Your task to perform on an android device: change keyboard looks Image 0: 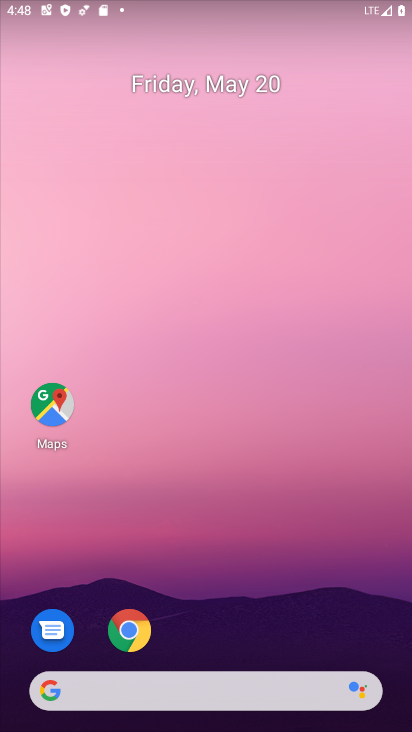
Step 0: drag from (219, 574) to (232, 159)
Your task to perform on an android device: change keyboard looks Image 1: 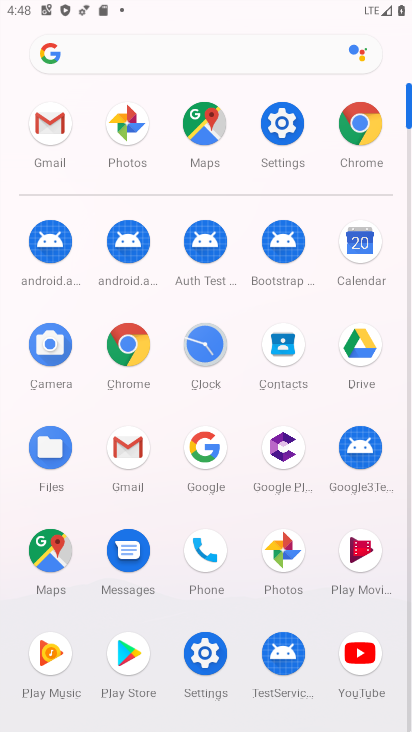
Step 1: click (283, 129)
Your task to perform on an android device: change keyboard looks Image 2: 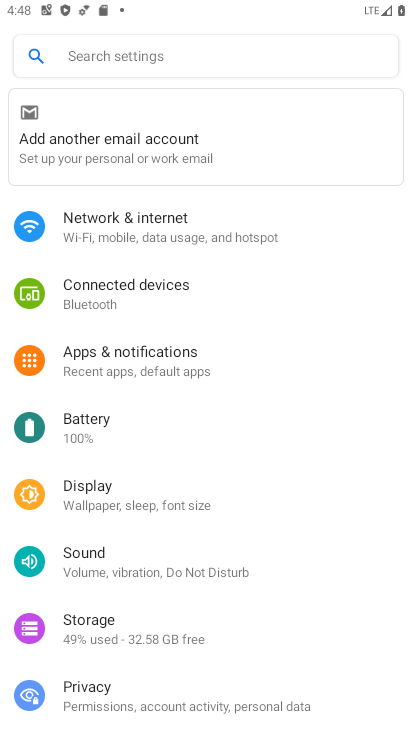
Step 2: drag from (183, 586) to (198, 245)
Your task to perform on an android device: change keyboard looks Image 3: 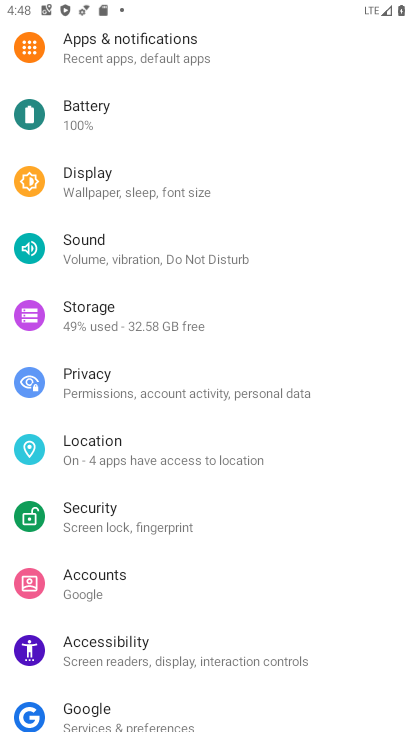
Step 3: drag from (155, 606) to (186, 347)
Your task to perform on an android device: change keyboard looks Image 4: 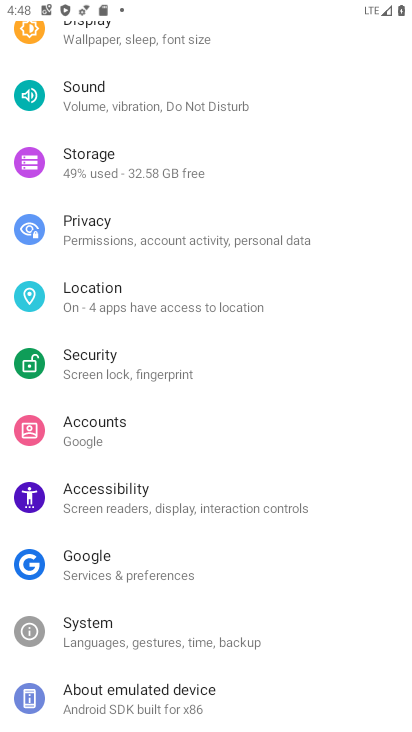
Step 4: click (147, 637)
Your task to perform on an android device: change keyboard looks Image 5: 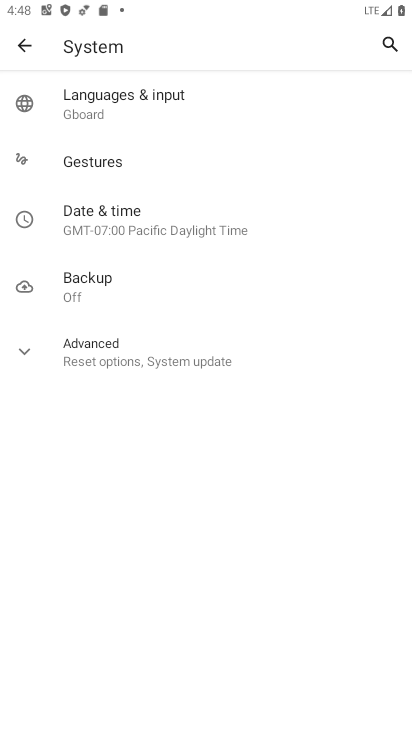
Step 5: click (136, 97)
Your task to perform on an android device: change keyboard looks Image 6: 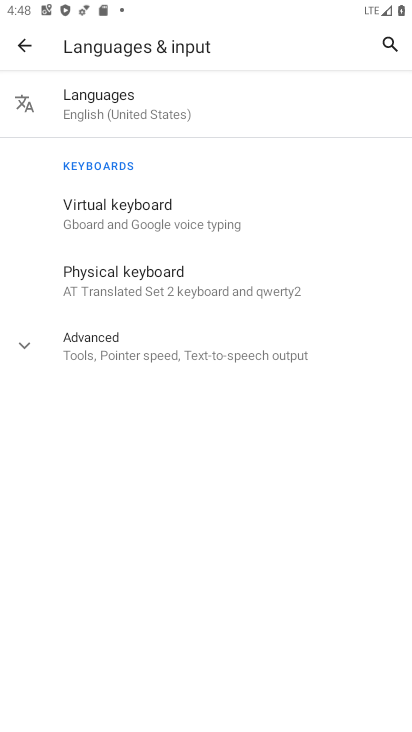
Step 6: click (132, 202)
Your task to perform on an android device: change keyboard looks Image 7: 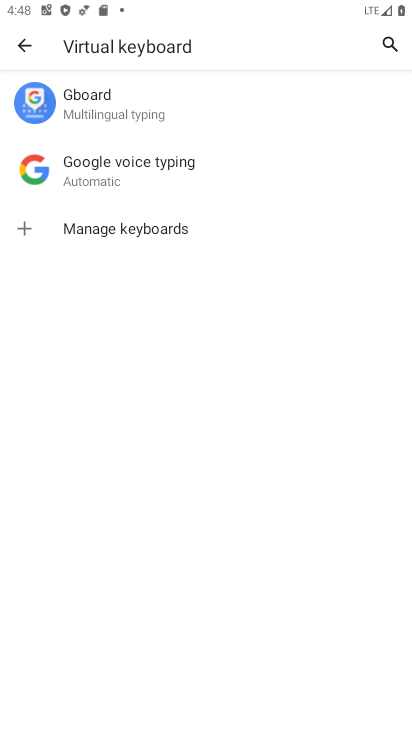
Step 7: click (119, 107)
Your task to perform on an android device: change keyboard looks Image 8: 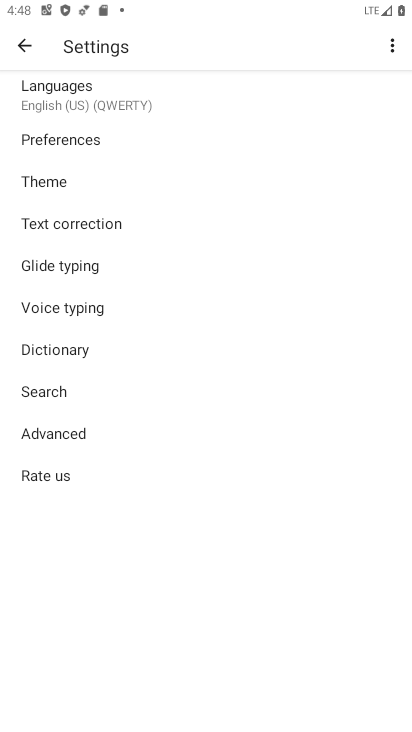
Step 8: click (55, 177)
Your task to perform on an android device: change keyboard looks Image 9: 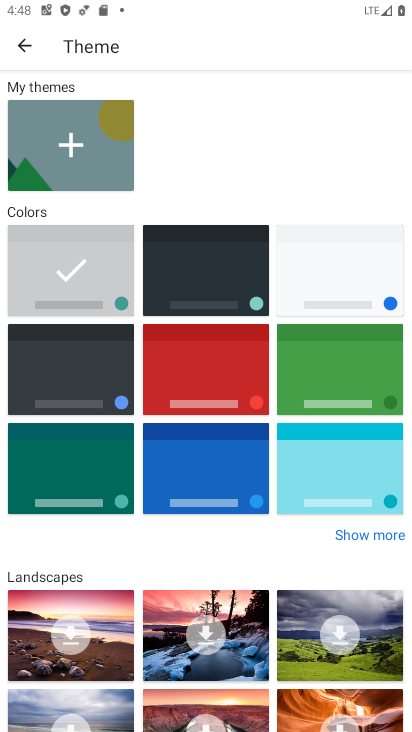
Step 9: click (219, 351)
Your task to perform on an android device: change keyboard looks Image 10: 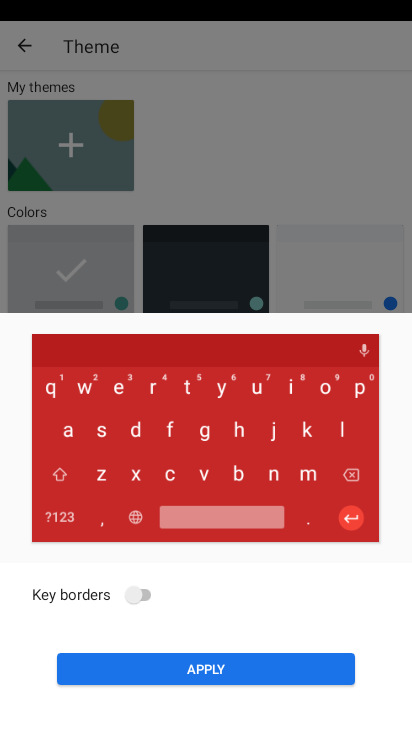
Step 10: click (145, 587)
Your task to perform on an android device: change keyboard looks Image 11: 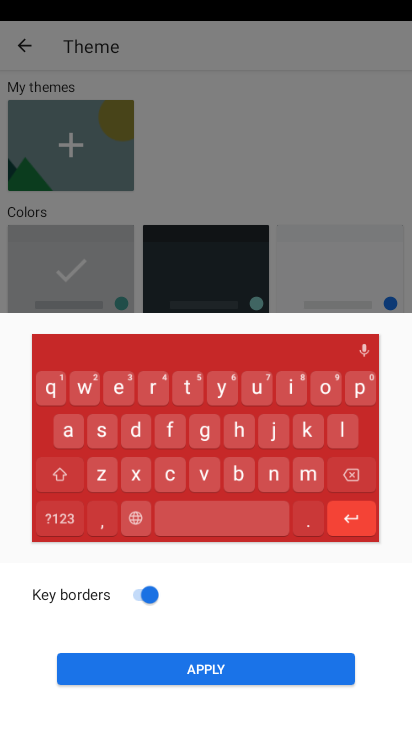
Step 11: click (163, 660)
Your task to perform on an android device: change keyboard looks Image 12: 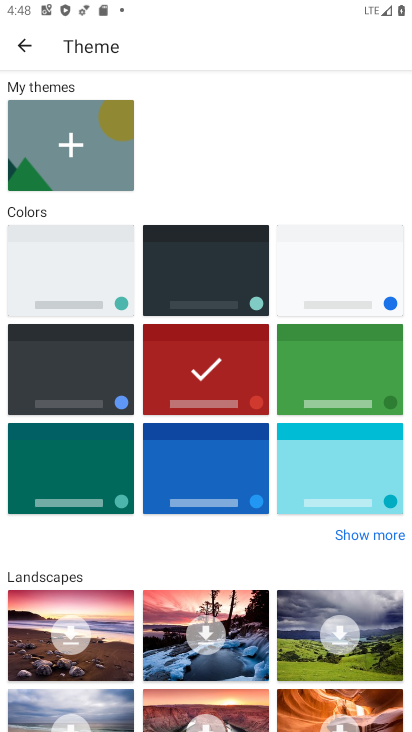
Step 12: task complete